Your task to perform on an android device: turn off airplane mode Image 0: 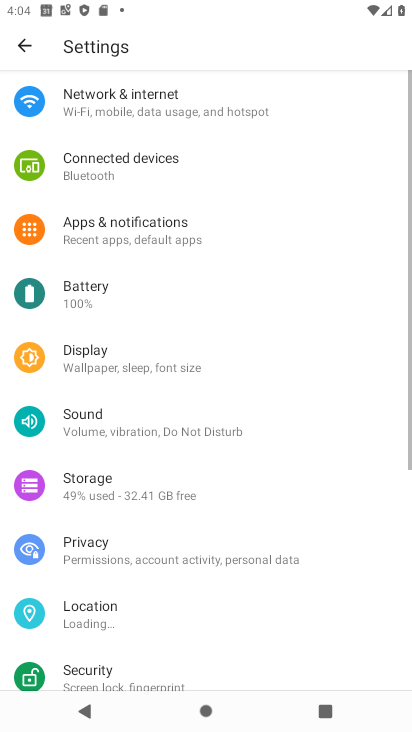
Step 0: drag from (267, 153) to (230, 443)
Your task to perform on an android device: turn off airplane mode Image 1: 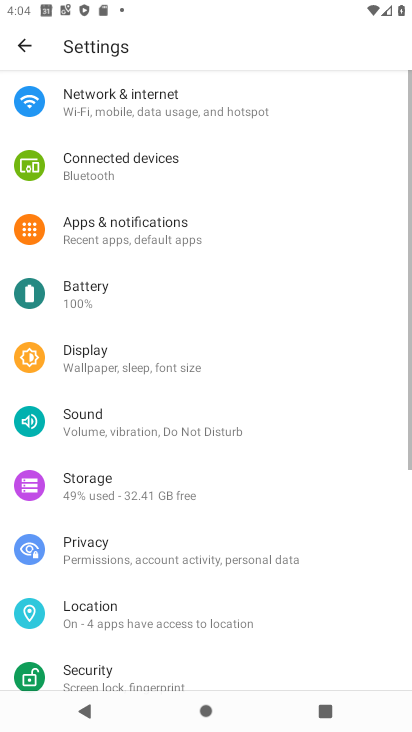
Step 1: click (187, 103)
Your task to perform on an android device: turn off airplane mode Image 2: 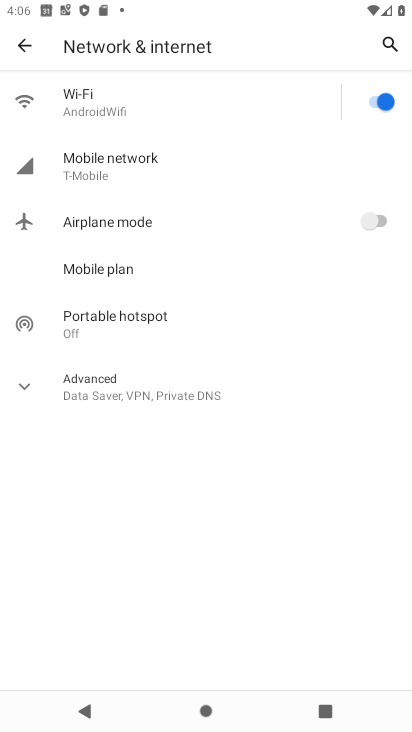
Step 2: task complete